Your task to perform on an android device: turn on improve location accuracy Image 0: 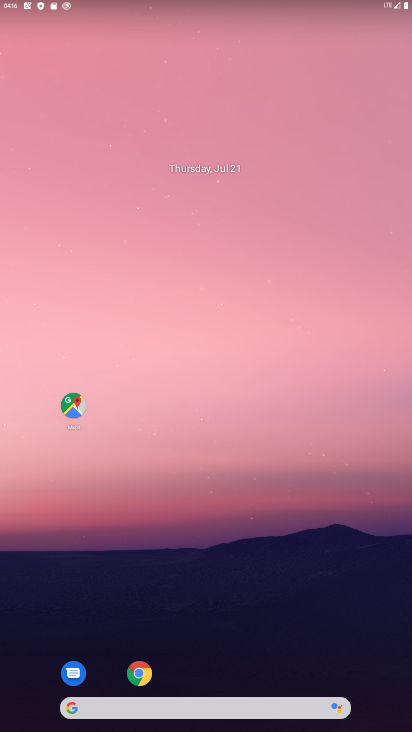
Step 0: drag from (281, 620) to (43, 148)
Your task to perform on an android device: turn on improve location accuracy Image 1: 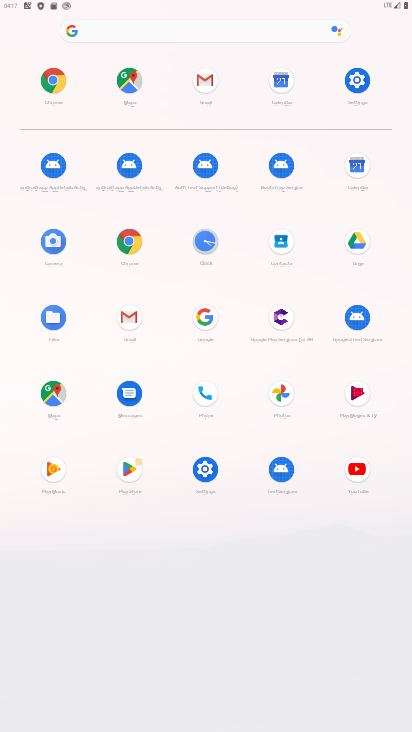
Step 1: click (362, 82)
Your task to perform on an android device: turn on improve location accuracy Image 2: 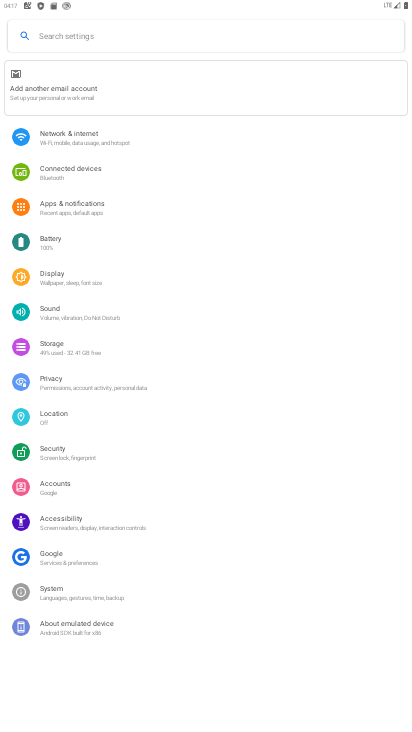
Step 2: click (53, 414)
Your task to perform on an android device: turn on improve location accuracy Image 3: 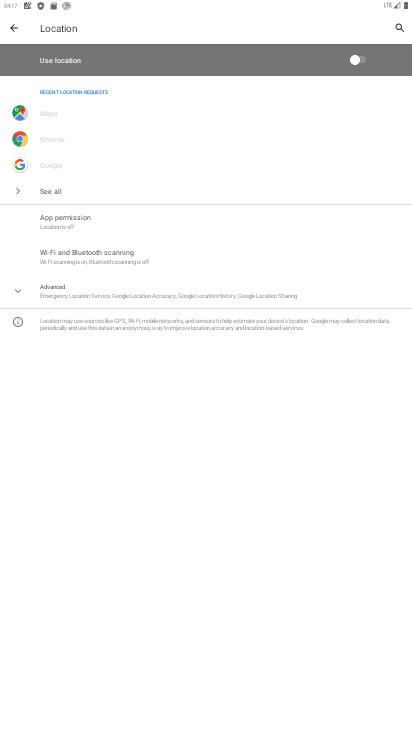
Step 3: click (85, 287)
Your task to perform on an android device: turn on improve location accuracy Image 4: 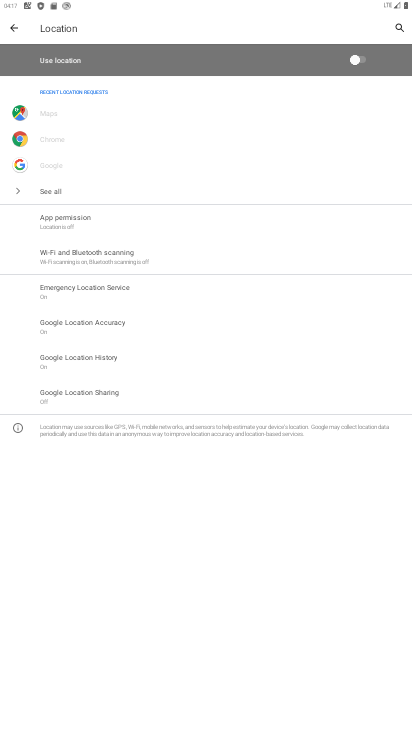
Step 4: click (70, 334)
Your task to perform on an android device: turn on improve location accuracy Image 5: 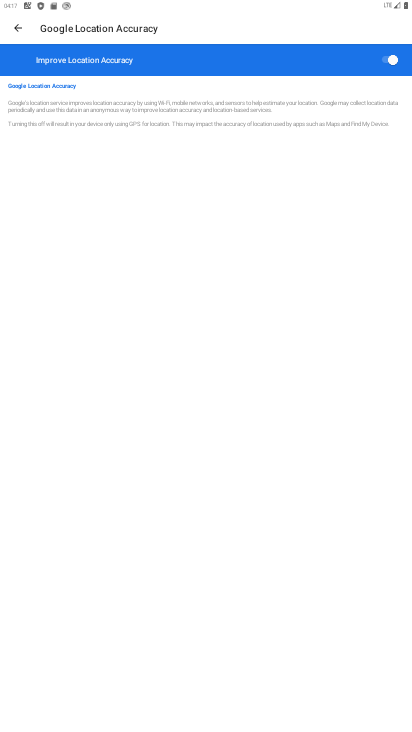
Step 5: task complete